Your task to perform on an android device: Open the calendar and show me this week's events Image 0: 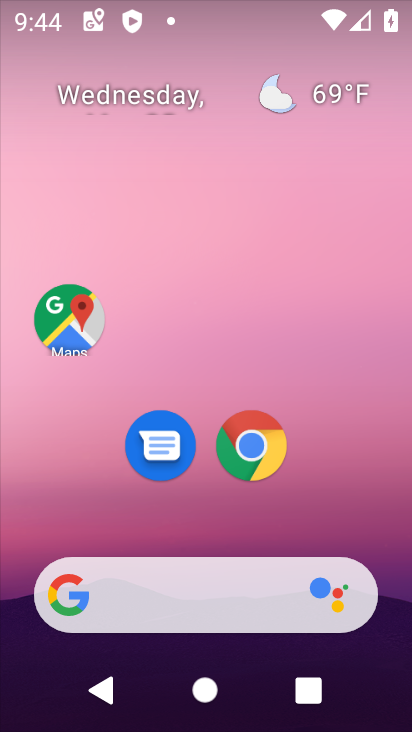
Step 0: click (377, 512)
Your task to perform on an android device: Open the calendar and show me this week's events Image 1: 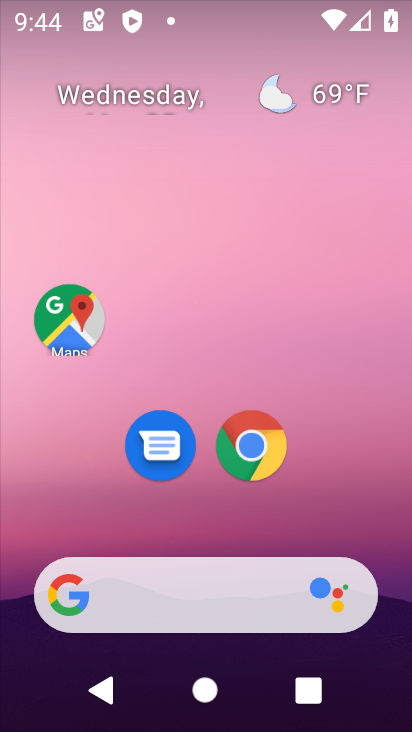
Step 1: drag from (351, 476) to (318, 1)
Your task to perform on an android device: Open the calendar and show me this week's events Image 2: 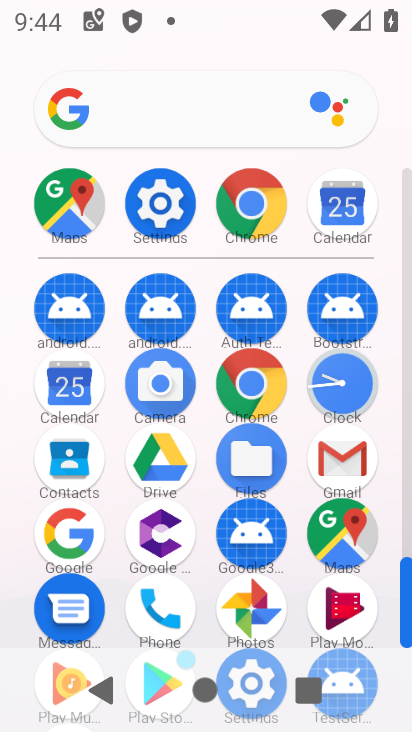
Step 2: click (81, 378)
Your task to perform on an android device: Open the calendar and show me this week's events Image 3: 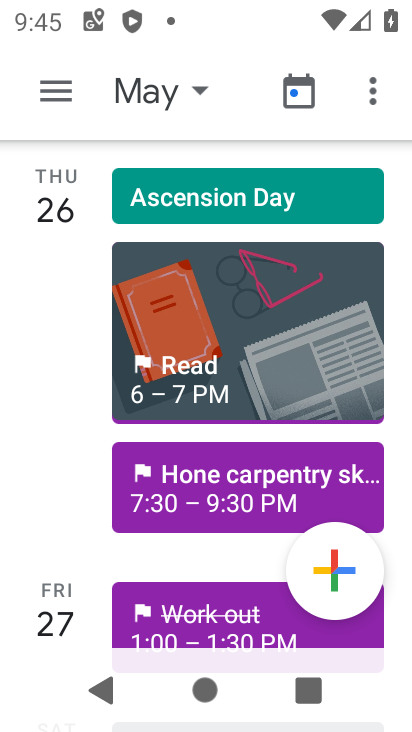
Step 3: click (206, 100)
Your task to perform on an android device: Open the calendar and show me this week's events Image 4: 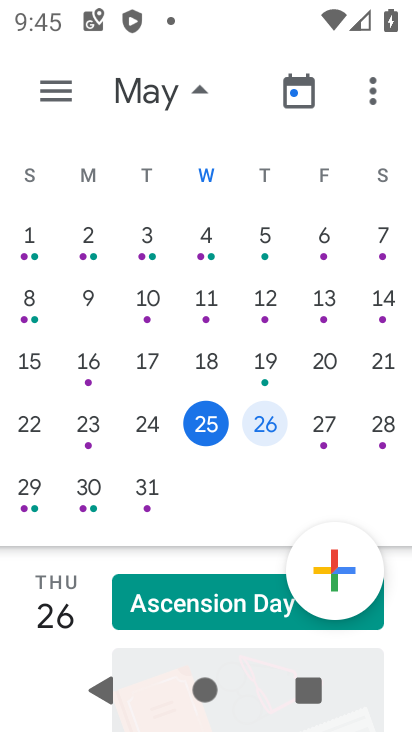
Step 4: click (342, 431)
Your task to perform on an android device: Open the calendar and show me this week's events Image 5: 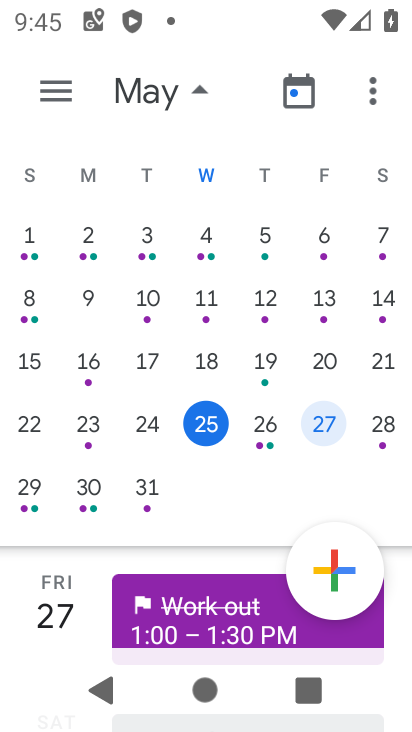
Step 5: click (69, 503)
Your task to perform on an android device: Open the calendar and show me this week's events Image 6: 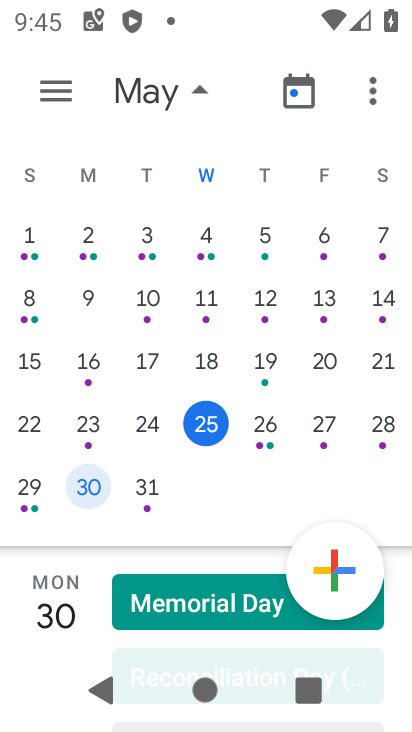
Step 6: click (207, 86)
Your task to perform on an android device: Open the calendar and show me this week's events Image 7: 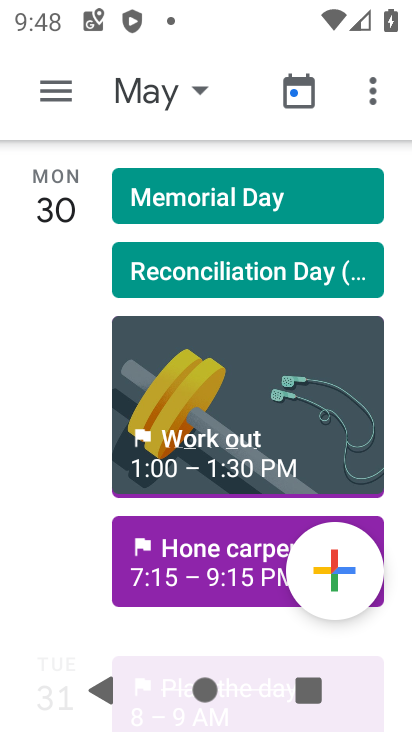
Step 7: task complete